Your task to perform on an android device: change notification settings in the gmail app Image 0: 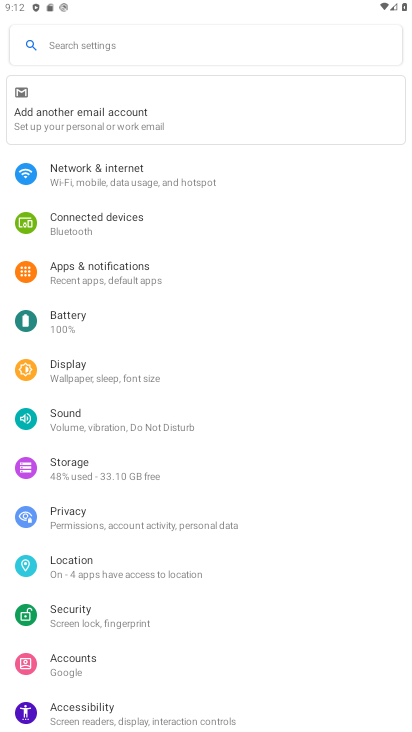
Step 0: press home button
Your task to perform on an android device: change notification settings in the gmail app Image 1: 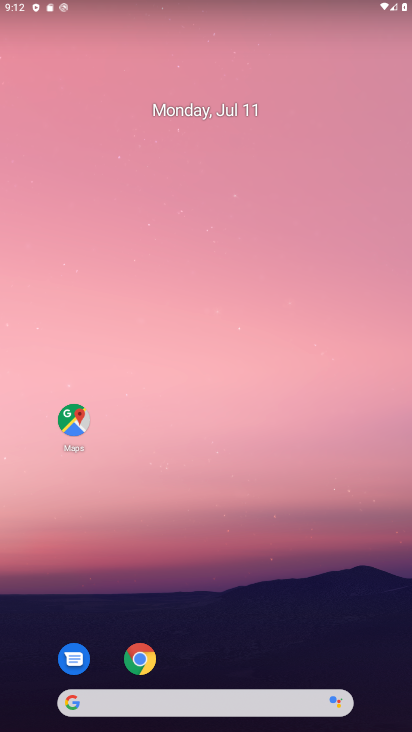
Step 1: drag from (233, 318) to (216, 203)
Your task to perform on an android device: change notification settings in the gmail app Image 2: 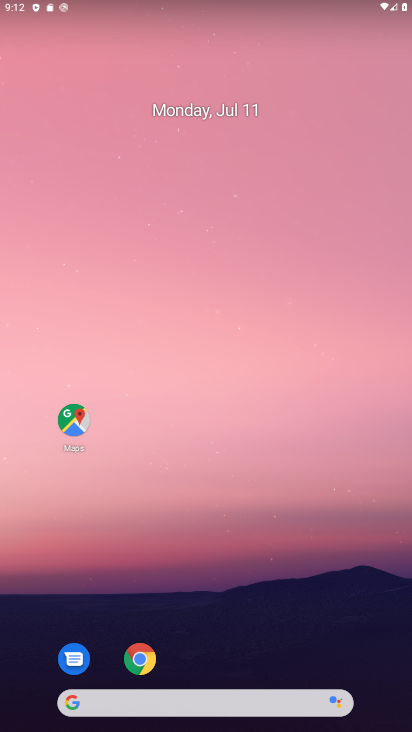
Step 2: drag from (268, 643) to (235, 234)
Your task to perform on an android device: change notification settings in the gmail app Image 3: 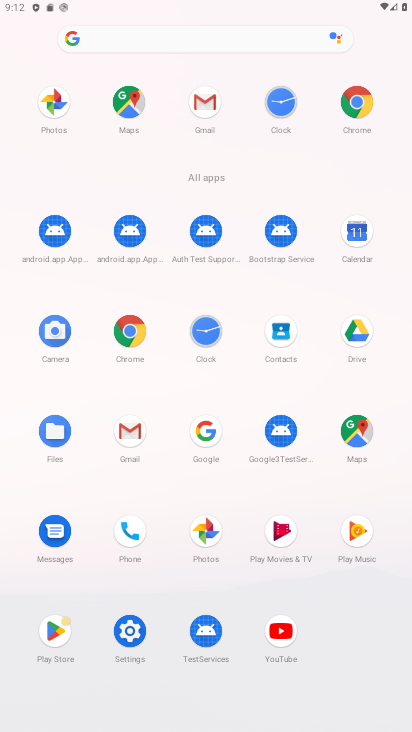
Step 3: click (140, 428)
Your task to perform on an android device: change notification settings in the gmail app Image 4: 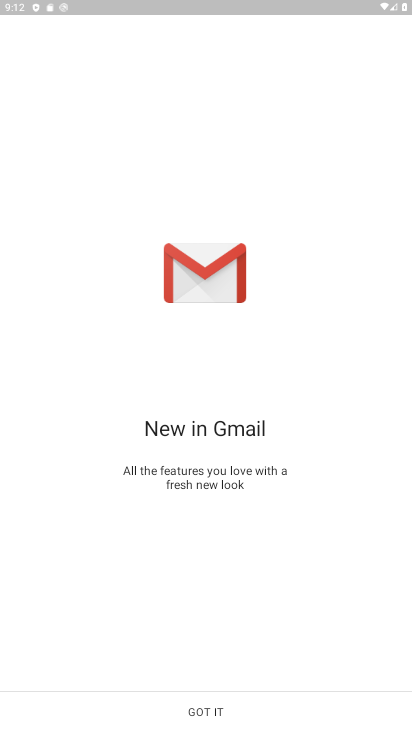
Step 4: click (216, 715)
Your task to perform on an android device: change notification settings in the gmail app Image 5: 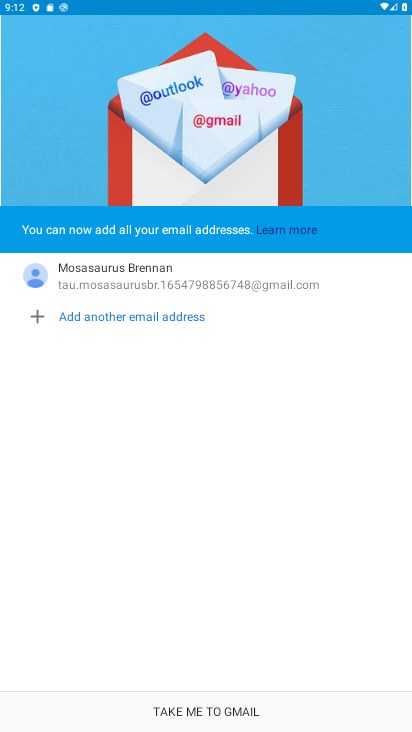
Step 5: click (216, 715)
Your task to perform on an android device: change notification settings in the gmail app Image 6: 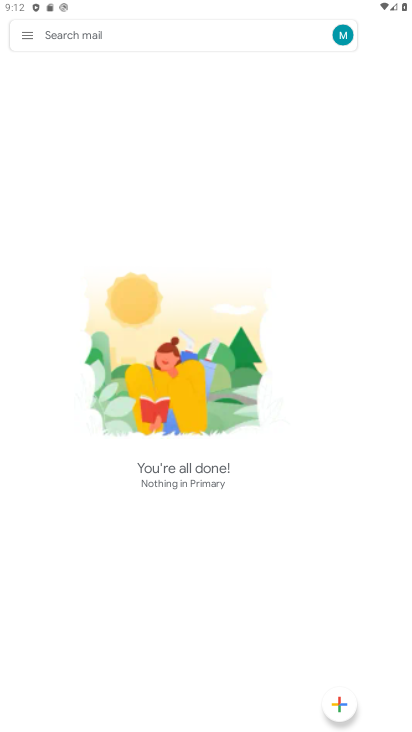
Step 6: click (27, 37)
Your task to perform on an android device: change notification settings in the gmail app Image 7: 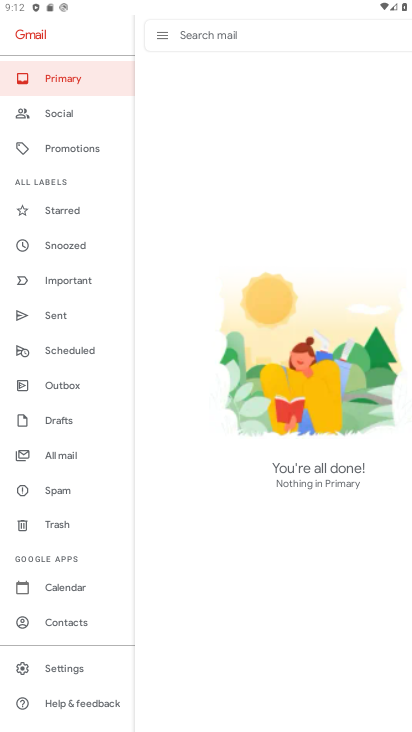
Step 7: click (72, 678)
Your task to perform on an android device: change notification settings in the gmail app Image 8: 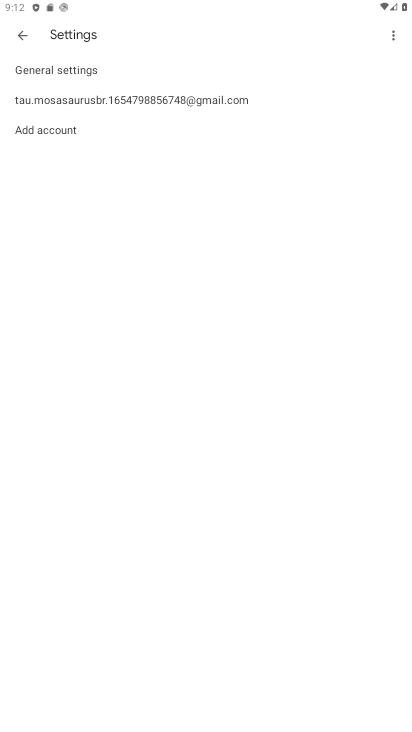
Step 8: click (290, 102)
Your task to perform on an android device: change notification settings in the gmail app Image 9: 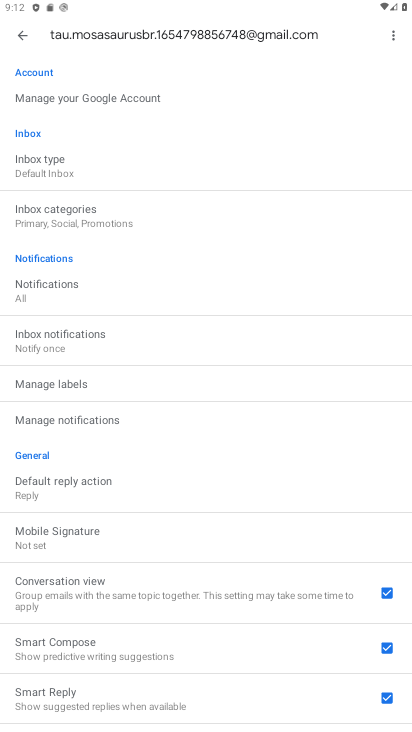
Step 9: click (180, 416)
Your task to perform on an android device: change notification settings in the gmail app Image 10: 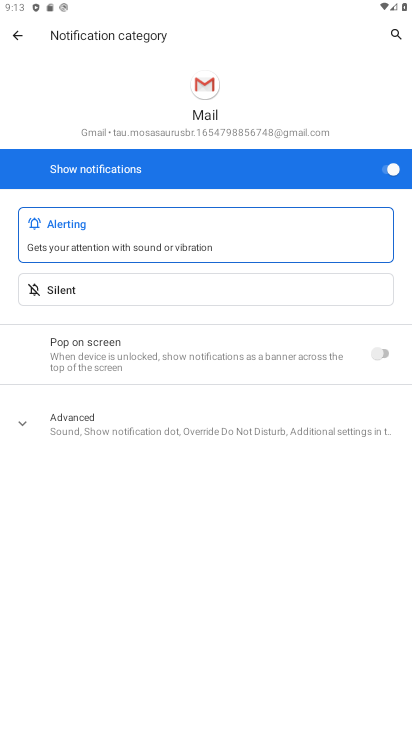
Step 10: click (376, 351)
Your task to perform on an android device: change notification settings in the gmail app Image 11: 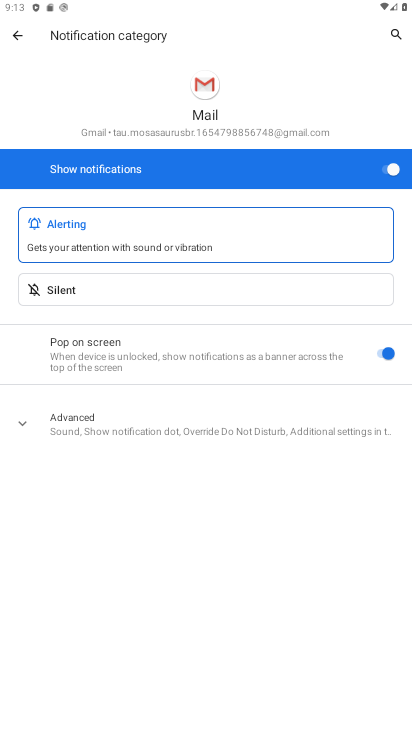
Step 11: click (343, 428)
Your task to perform on an android device: change notification settings in the gmail app Image 12: 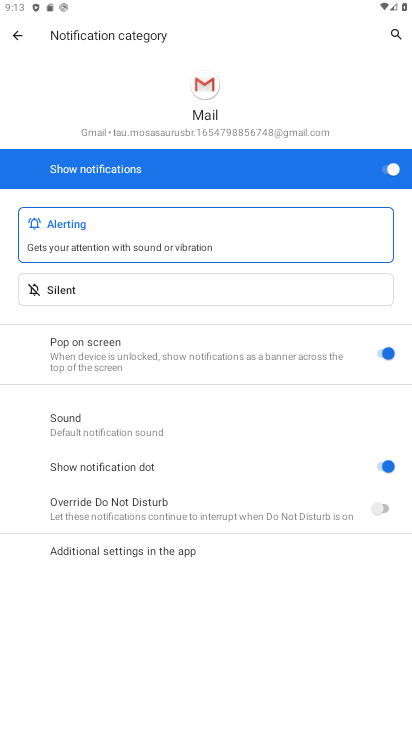
Step 12: click (384, 502)
Your task to perform on an android device: change notification settings in the gmail app Image 13: 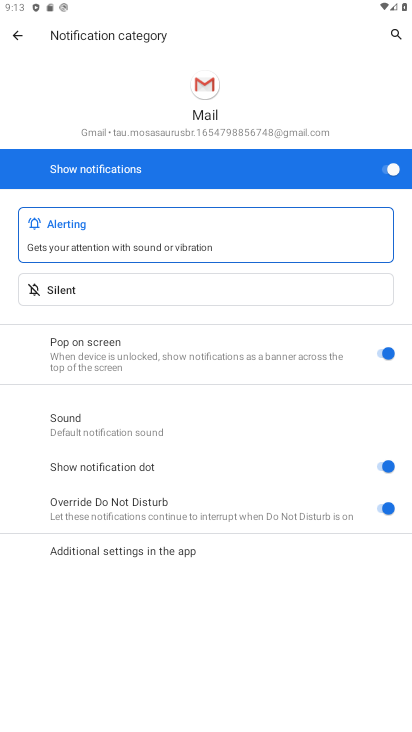
Step 13: click (385, 463)
Your task to perform on an android device: change notification settings in the gmail app Image 14: 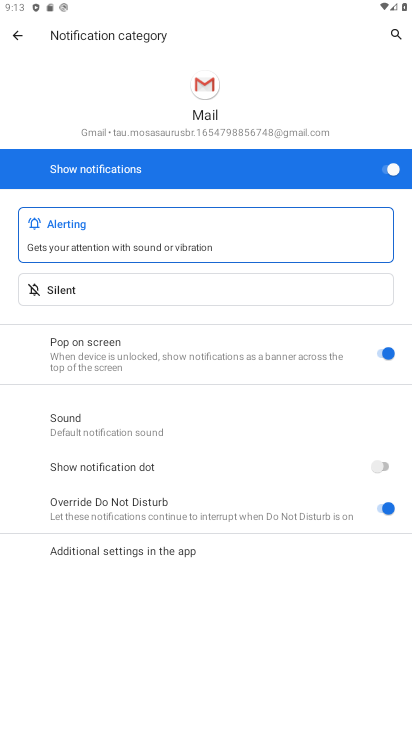
Step 14: task complete